Your task to perform on an android device: Open the map Image 0: 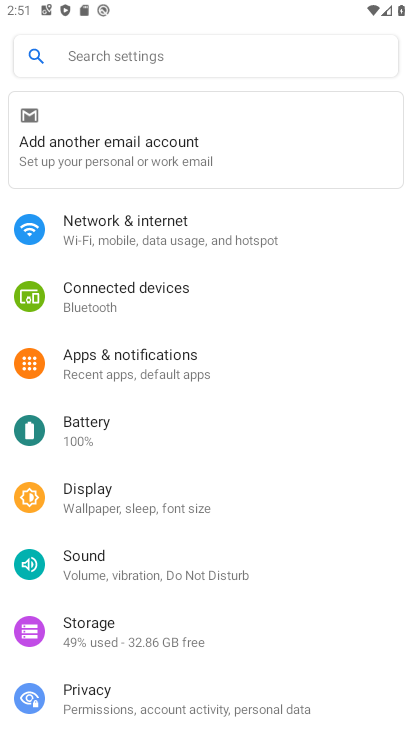
Step 0: press home button
Your task to perform on an android device: Open the map Image 1: 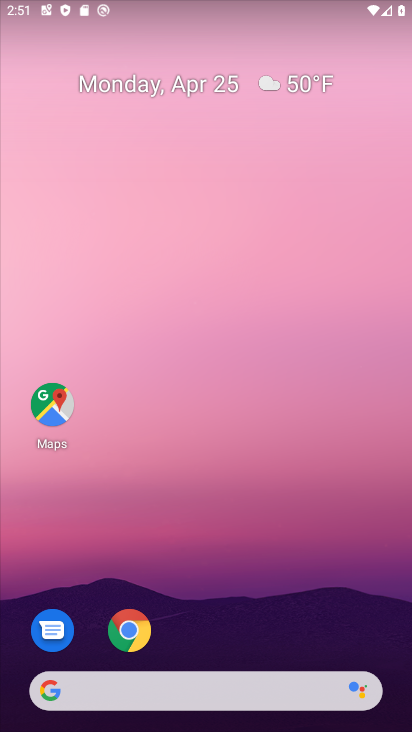
Step 1: click (56, 412)
Your task to perform on an android device: Open the map Image 2: 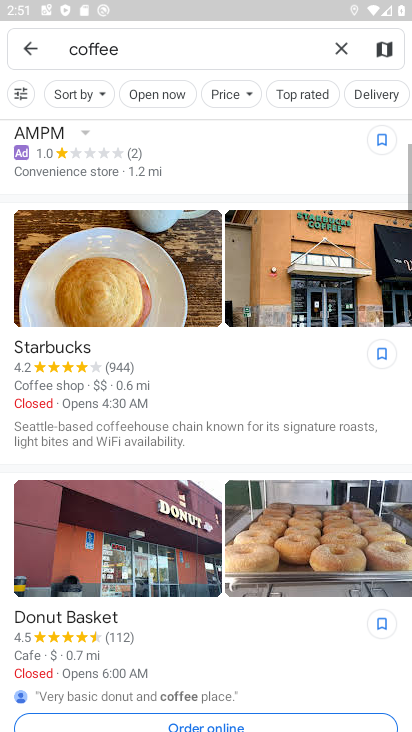
Step 2: task complete